Your task to perform on an android device: Do I have any events this weekend? Image 0: 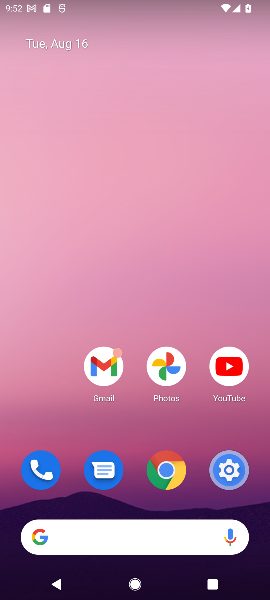
Step 0: drag from (52, 379) to (131, 2)
Your task to perform on an android device: Do I have any events this weekend? Image 1: 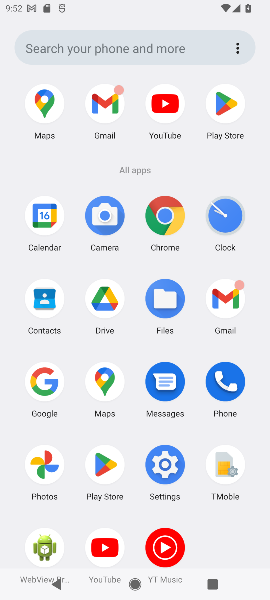
Step 1: click (41, 208)
Your task to perform on an android device: Do I have any events this weekend? Image 2: 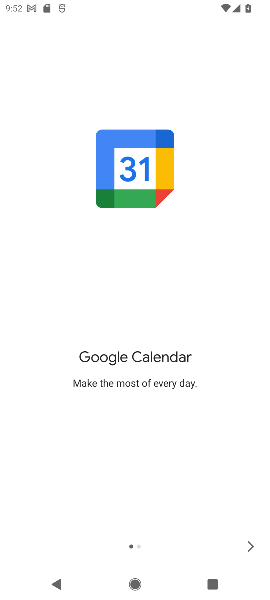
Step 2: click (252, 548)
Your task to perform on an android device: Do I have any events this weekend? Image 3: 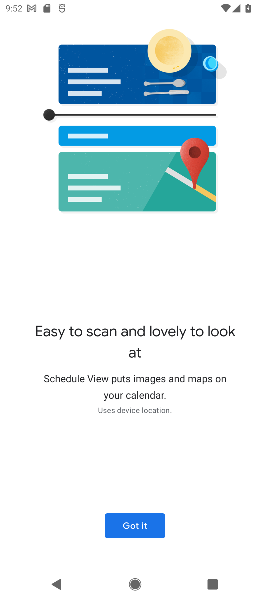
Step 3: click (159, 521)
Your task to perform on an android device: Do I have any events this weekend? Image 4: 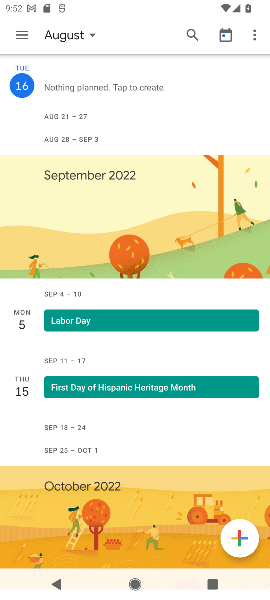
Step 4: click (22, 32)
Your task to perform on an android device: Do I have any events this weekend? Image 5: 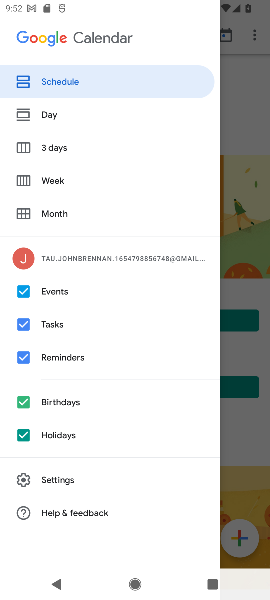
Step 5: click (24, 177)
Your task to perform on an android device: Do I have any events this weekend? Image 6: 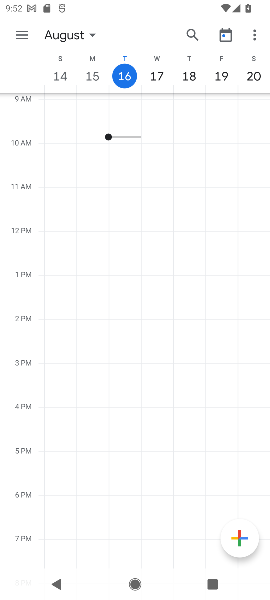
Step 6: click (254, 75)
Your task to perform on an android device: Do I have any events this weekend? Image 7: 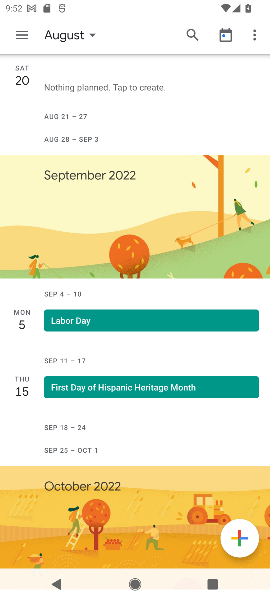
Step 7: task complete